Your task to perform on an android device: Show me the alarms in the clock app Image 0: 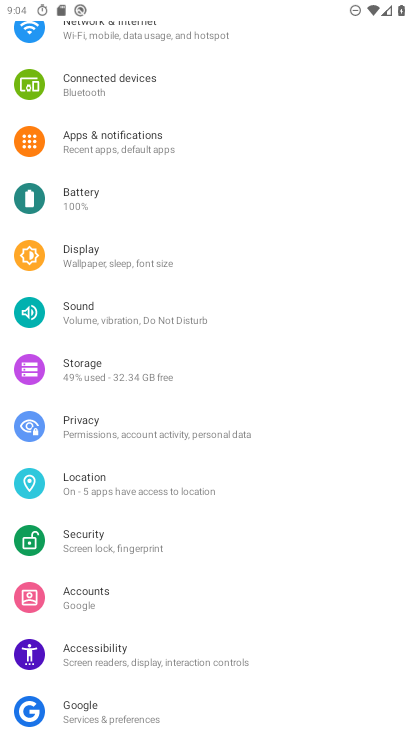
Step 0: press home button
Your task to perform on an android device: Show me the alarms in the clock app Image 1: 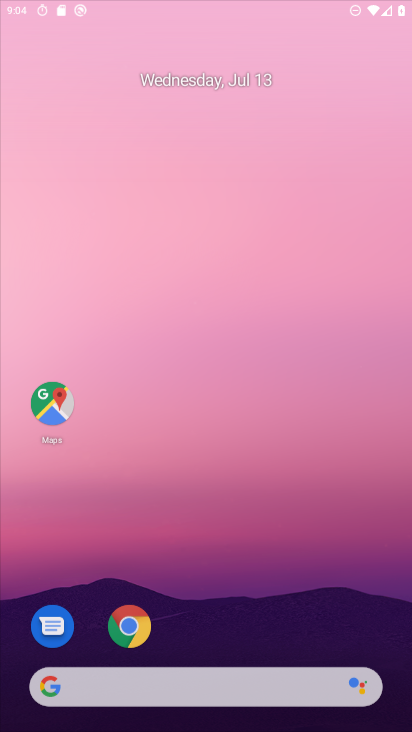
Step 1: drag from (393, 700) to (249, 57)
Your task to perform on an android device: Show me the alarms in the clock app Image 2: 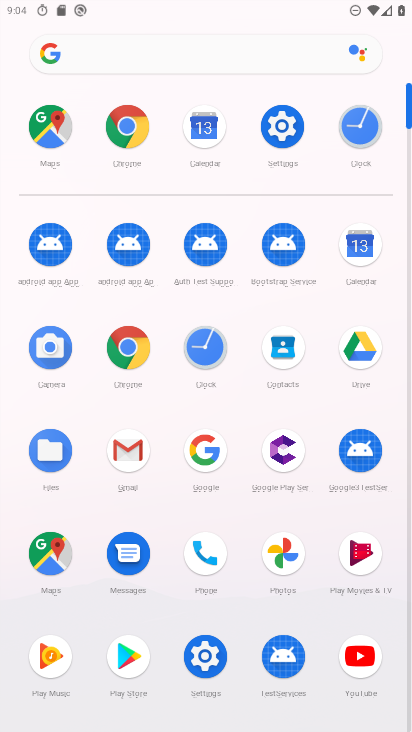
Step 2: click (200, 348)
Your task to perform on an android device: Show me the alarms in the clock app Image 3: 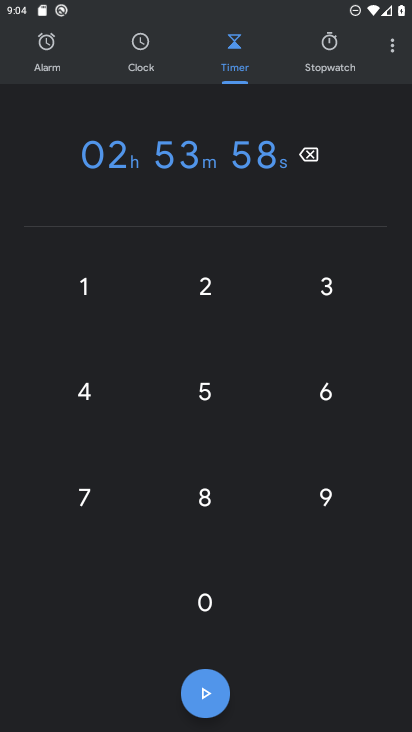
Step 3: click (40, 52)
Your task to perform on an android device: Show me the alarms in the clock app Image 4: 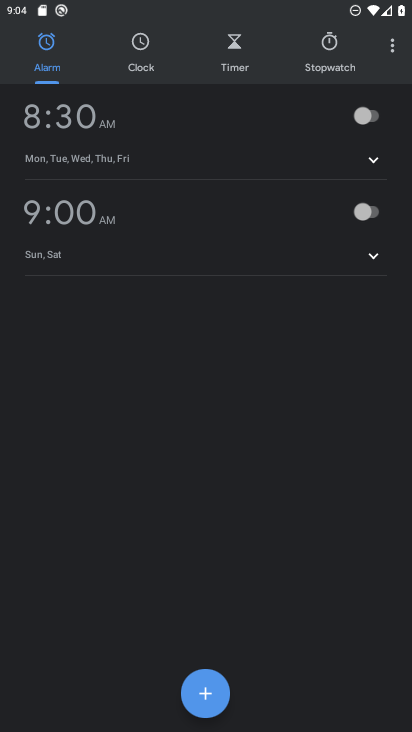
Step 4: task complete